Your task to perform on an android device: change notifications settings Image 0: 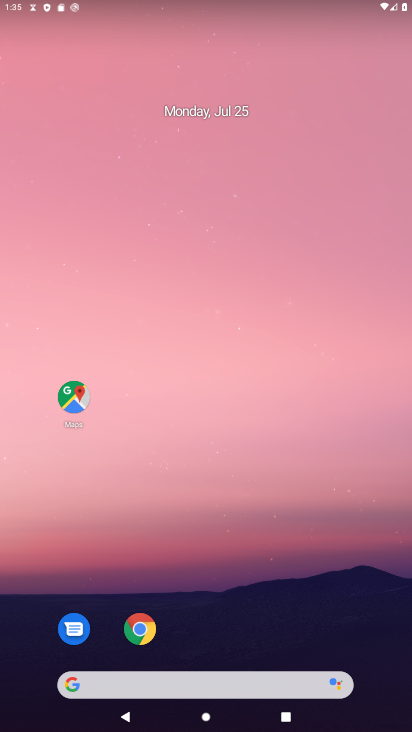
Step 0: drag from (380, 587) to (344, 0)
Your task to perform on an android device: change notifications settings Image 1: 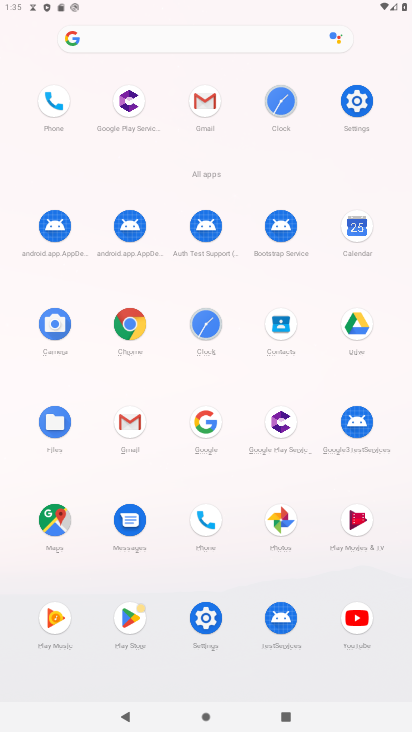
Step 1: click (346, 103)
Your task to perform on an android device: change notifications settings Image 2: 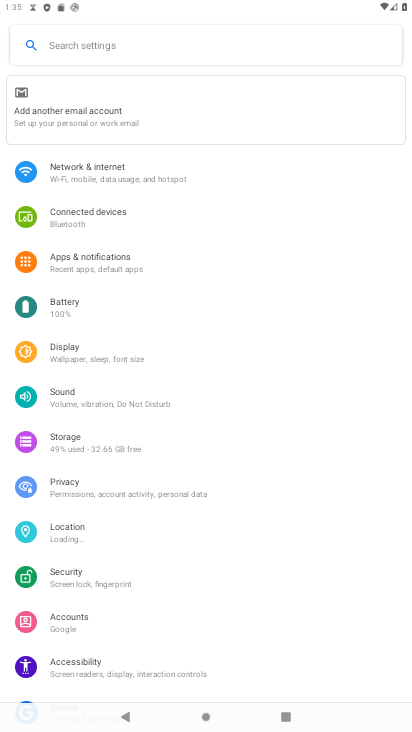
Step 2: click (87, 266)
Your task to perform on an android device: change notifications settings Image 3: 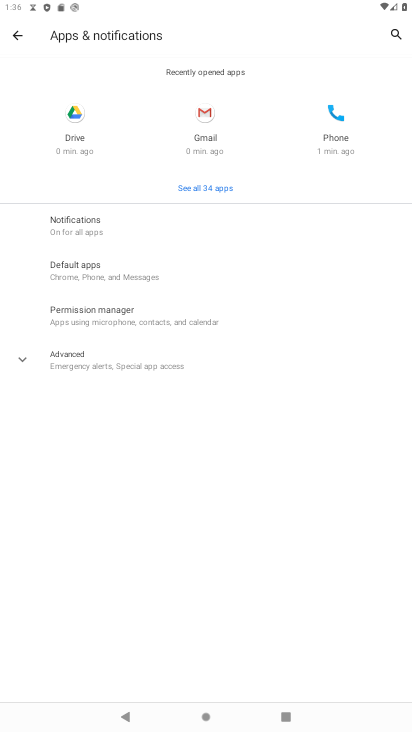
Step 3: click (94, 239)
Your task to perform on an android device: change notifications settings Image 4: 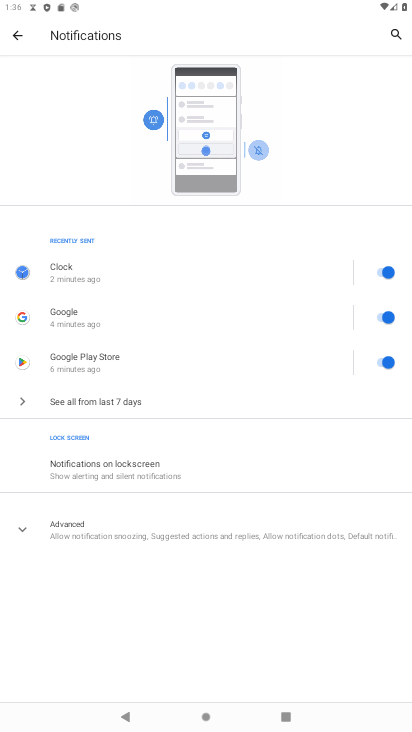
Step 4: click (103, 518)
Your task to perform on an android device: change notifications settings Image 5: 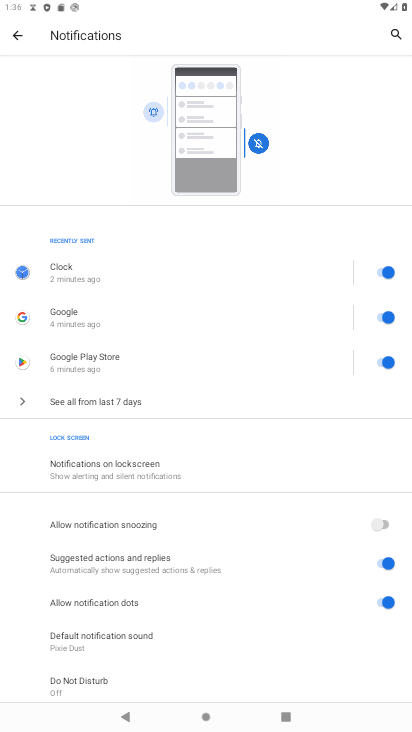
Step 5: click (387, 271)
Your task to perform on an android device: change notifications settings Image 6: 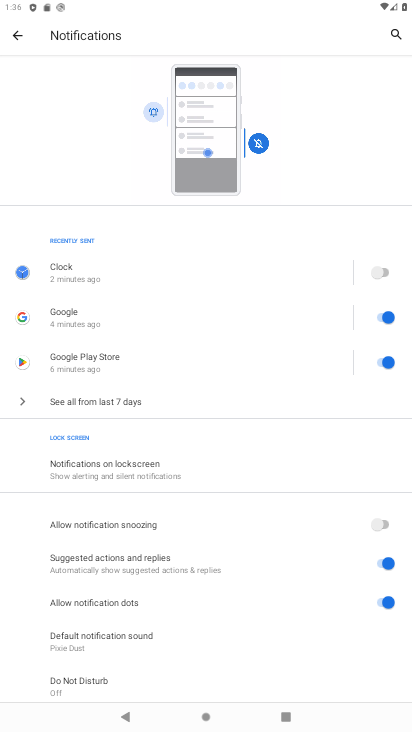
Step 6: task complete